Your task to perform on an android device: uninstall "Duolingo: language lessons" Image 0: 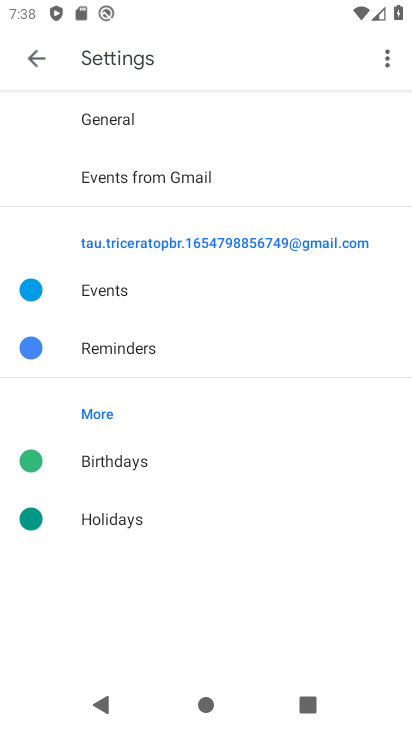
Step 0: press home button
Your task to perform on an android device: uninstall "Duolingo: language lessons" Image 1: 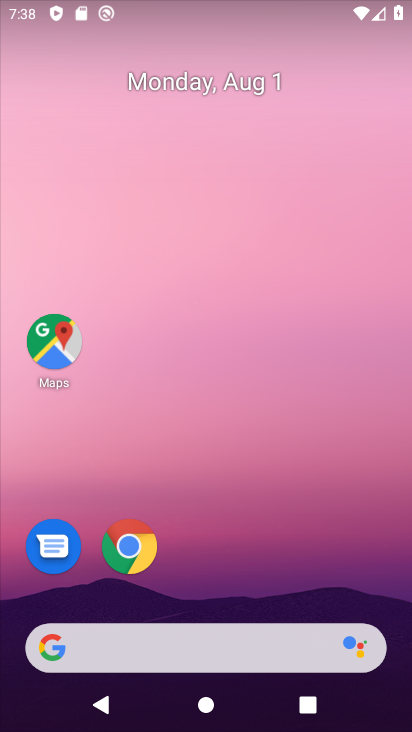
Step 1: drag from (242, 547) to (272, 33)
Your task to perform on an android device: uninstall "Duolingo: language lessons" Image 2: 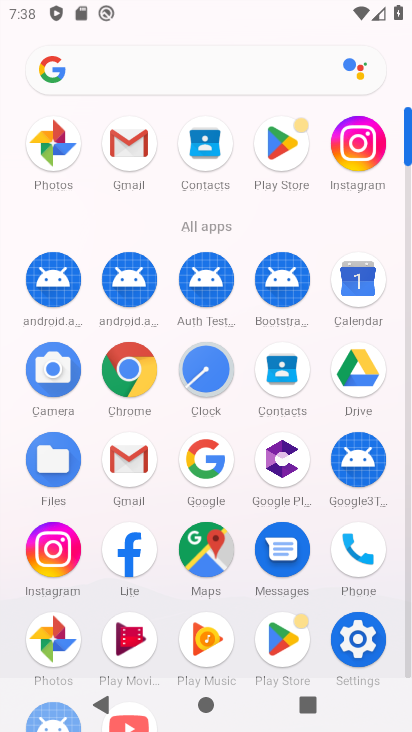
Step 2: click (272, 143)
Your task to perform on an android device: uninstall "Duolingo: language lessons" Image 3: 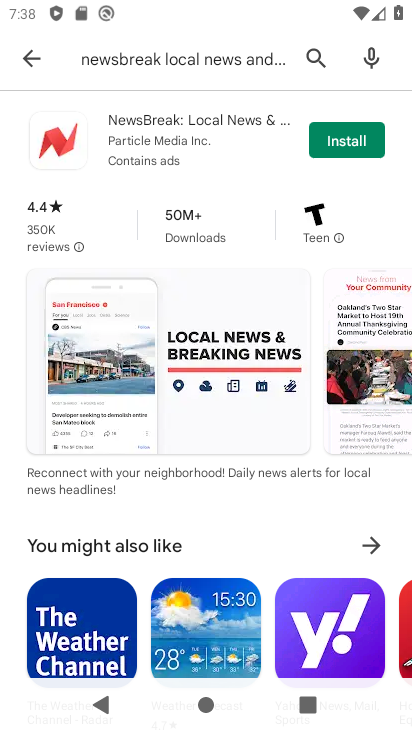
Step 3: click (313, 55)
Your task to perform on an android device: uninstall "Duolingo: language lessons" Image 4: 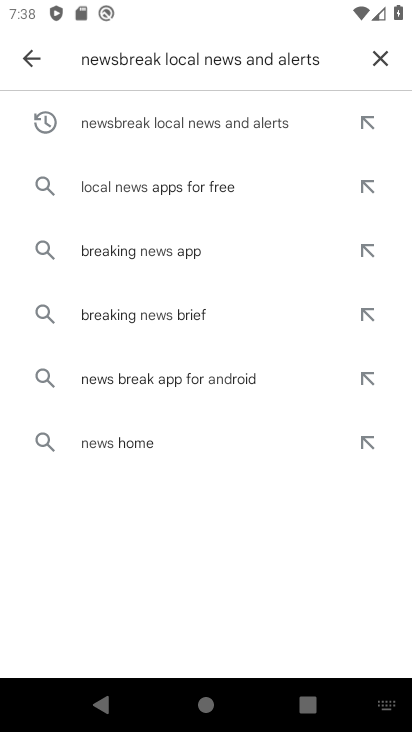
Step 4: click (379, 54)
Your task to perform on an android device: uninstall "Duolingo: language lessons" Image 5: 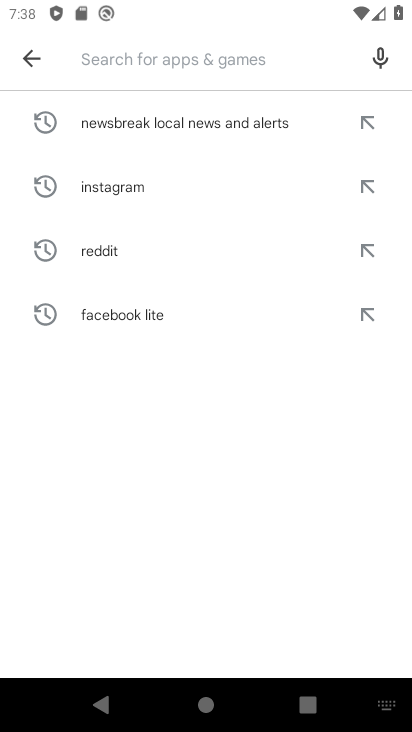
Step 5: type "duolingo"
Your task to perform on an android device: uninstall "Duolingo: language lessons" Image 6: 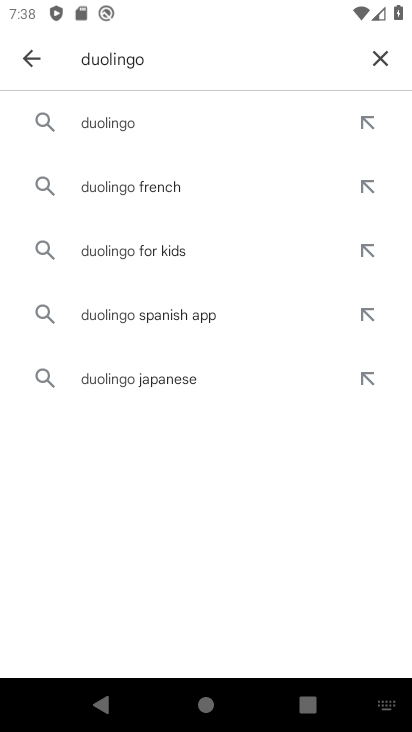
Step 6: type ": language lessons"
Your task to perform on an android device: uninstall "Duolingo: language lessons" Image 7: 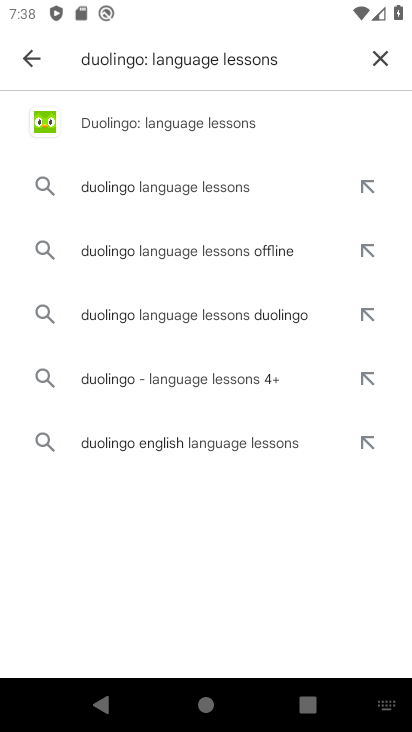
Step 7: click (232, 124)
Your task to perform on an android device: uninstall "Duolingo: language lessons" Image 8: 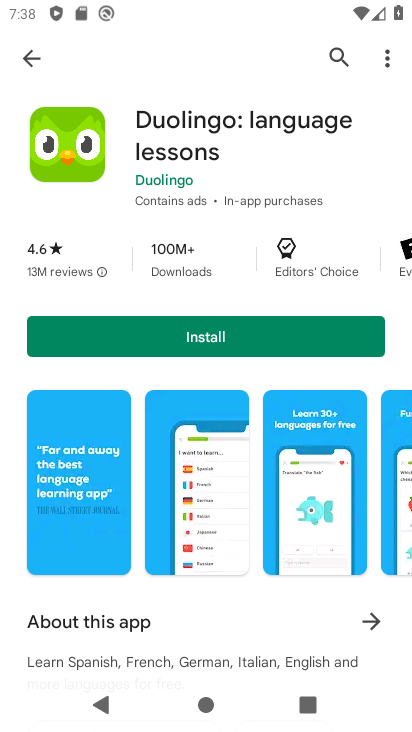
Step 8: task complete